Your task to perform on an android device: Clear all items from cart on costco. Add "logitech g502" to the cart on costco, then select checkout. Image 0: 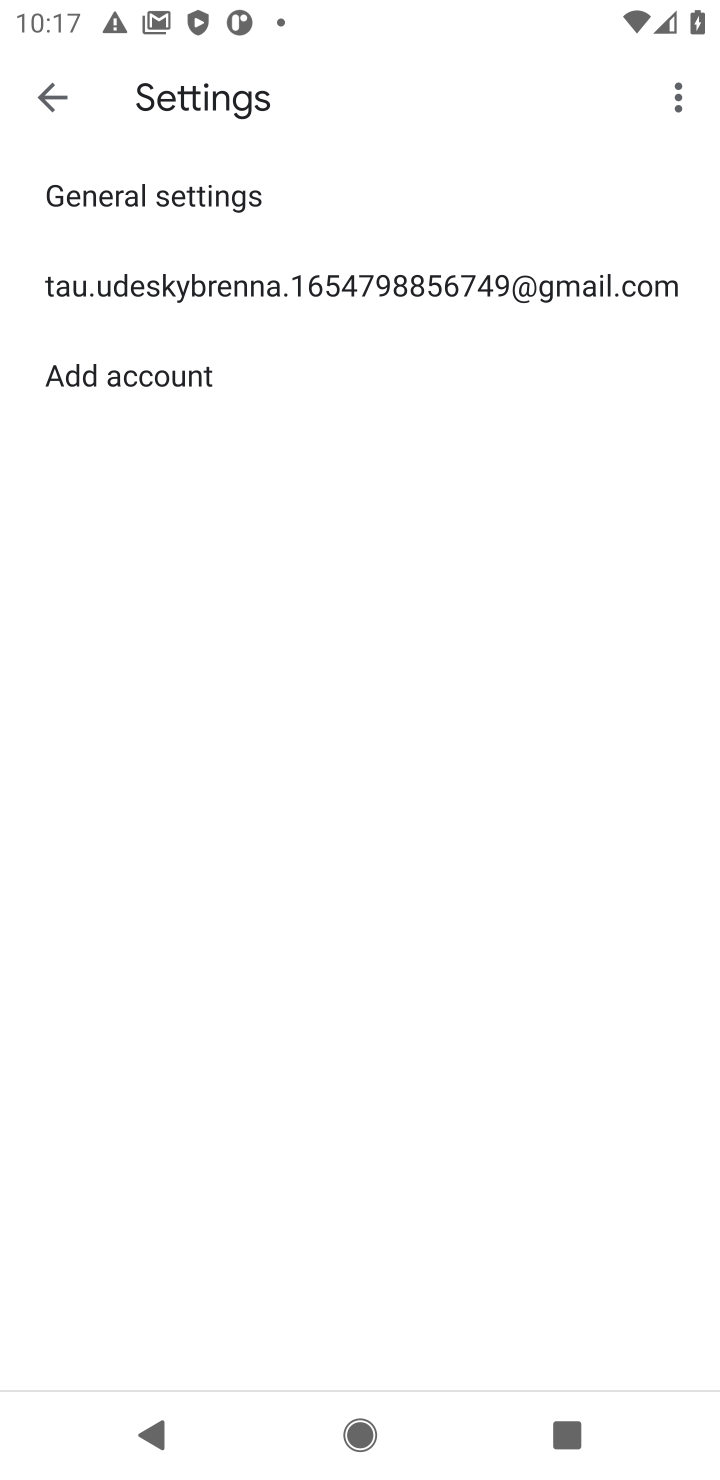
Step 0: task complete